Your task to perform on an android device: turn off location Image 0: 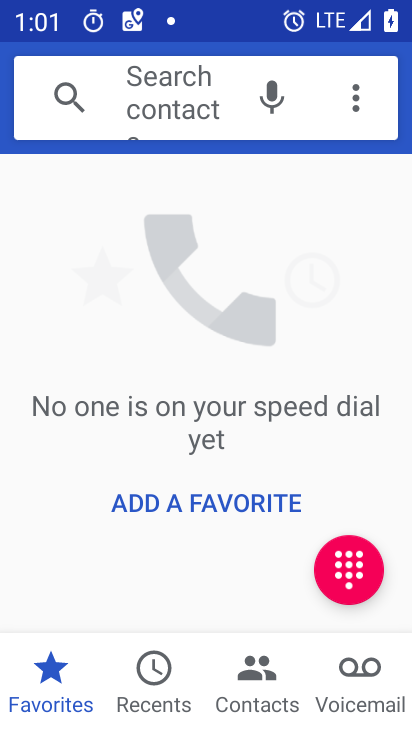
Step 0: press home button
Your task to perform on an android device: turn off location Image 1: 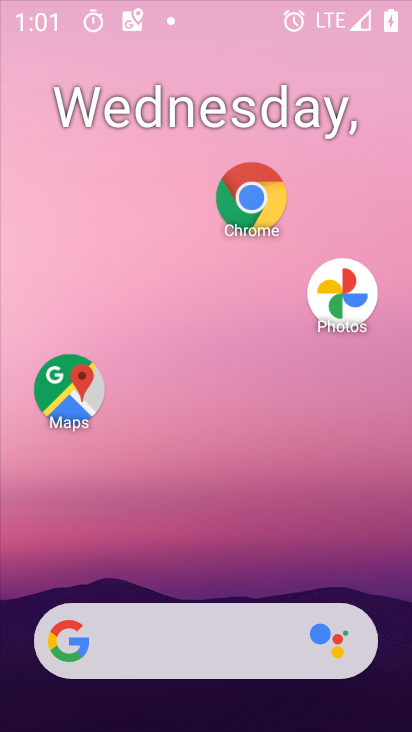
Step 1: drag from (194, 633) to (159, 1)
Your task to perform on an android device: turn off location Image 2: 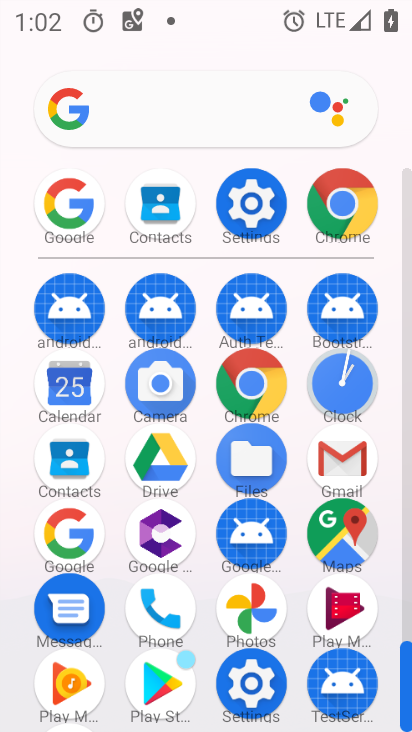
Step 2: click (257, 226)
Your task to perform on an android device: turn off location Image 3: 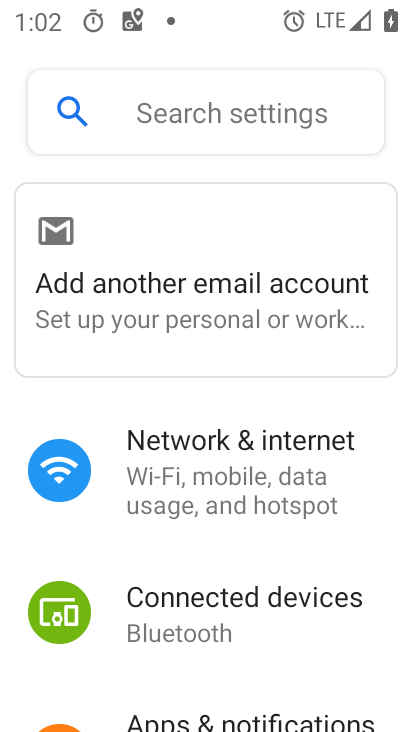
Step 3: drag from (223, 508) to (224, 145)
Your task to perform on an android device: turn off location Image 4: 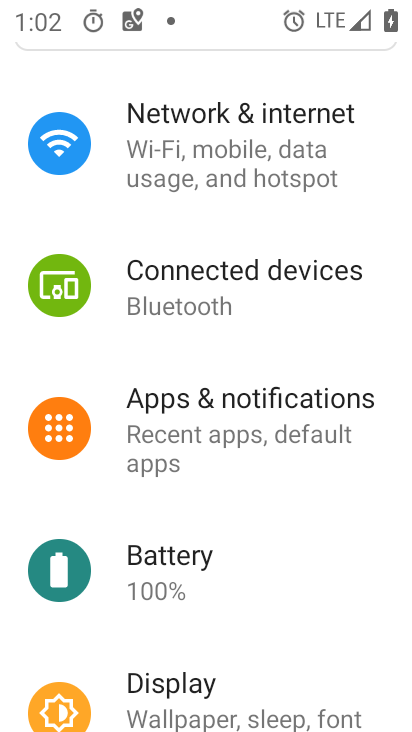
Step 4: drag from (185, 457) to (192, 202)
Your task to perform on an android device: turn off location Image 5: 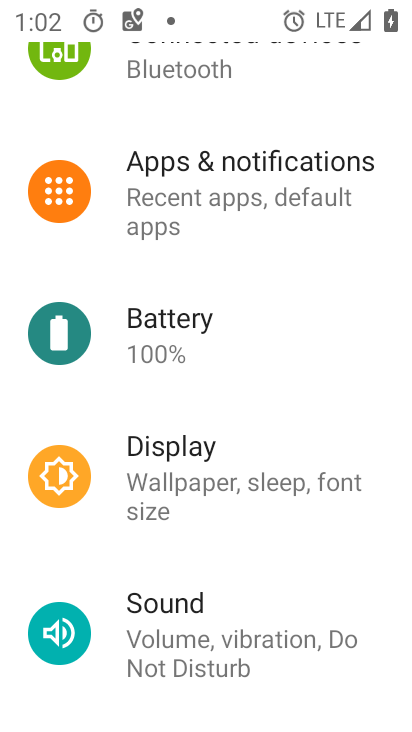
Step 5: drag from (170, 588) to (202, 239)
Your task to perform on an android device: turn off location Image 6: 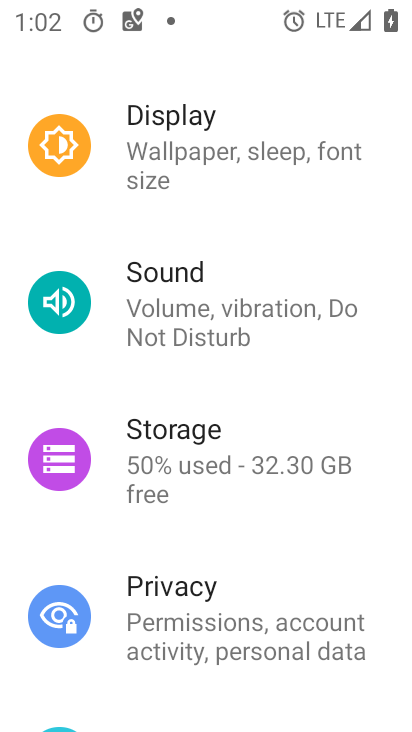
Step 6: drag from (172, 562) to (166, 349)
Your task to perform on an android device: turn off location Image 7: 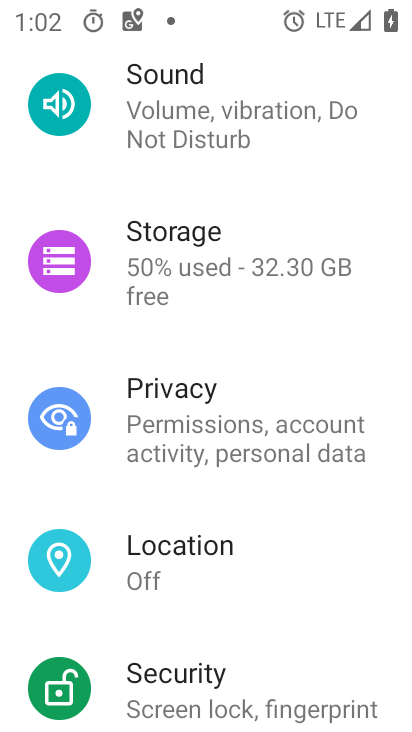
Step 7: click (125, 559)
Your task to perform on an android device: turn off location Image 8: 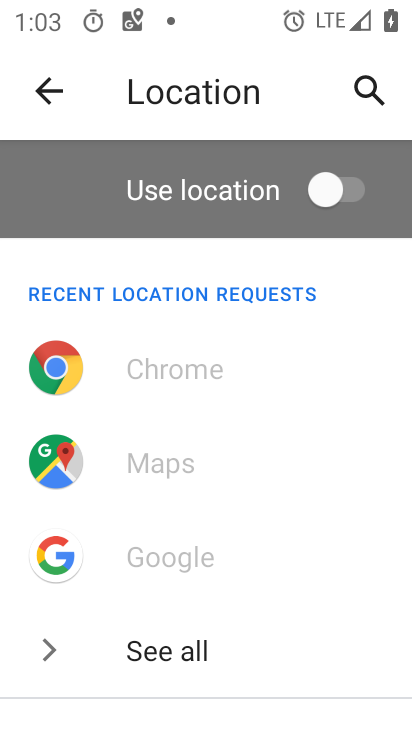
Step 8: task complete